Your task to perform on an android device: change the clock display to analog Image 0: 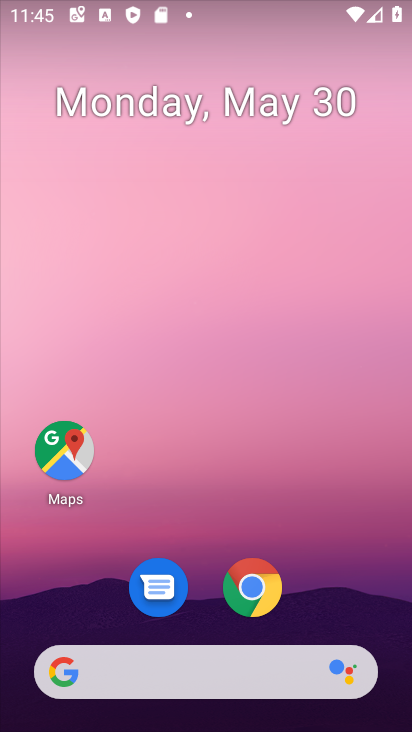
Step 0: drag from (219, 612) to (294, 210)
Your task to perform on an android device: change the clock display to analog Image 1: 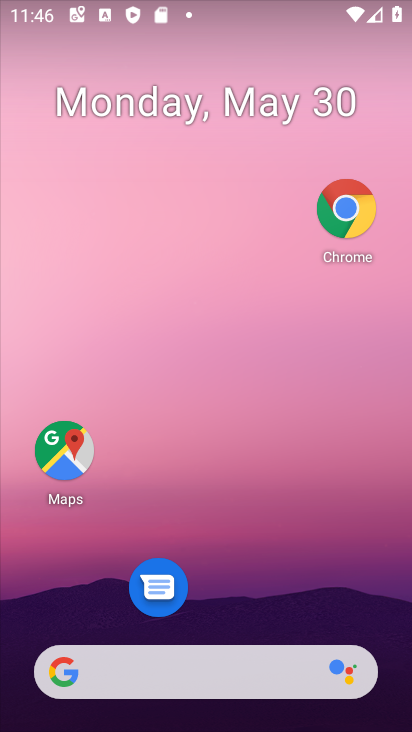
Step 1: drag from (210, 599) to (228, 219)
Your task to perform on an android device: change the clock display to analog Image 2: 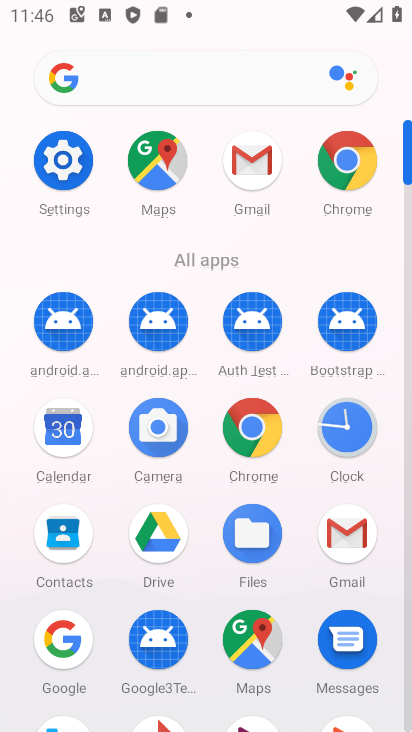
Step 2: click (368, 429)
Your task to perform on an android device: change the clock display to analog Image 3: 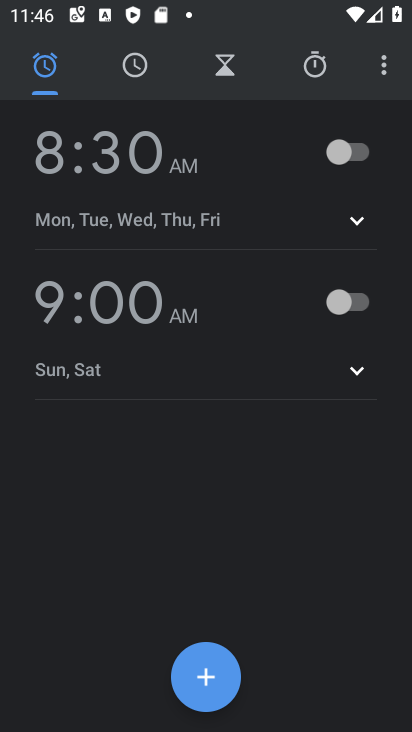
Step 3: click (388, 54)
Your task to perform on an android device: change the clock display to analog Image 4: 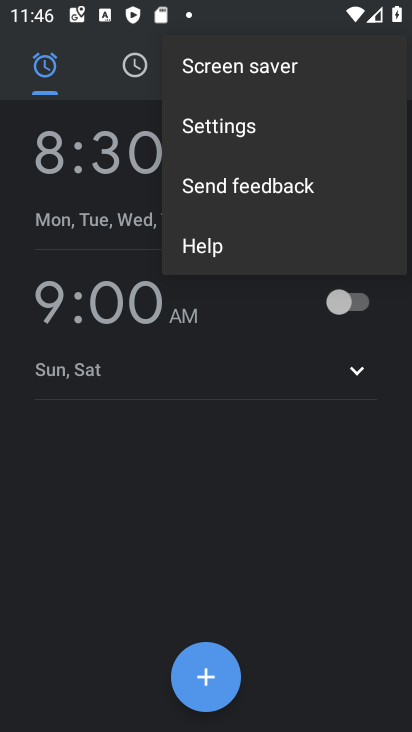
Step 4: click (261, 120)
Your task to perform on an android device: change the clock display to analog Image 5: 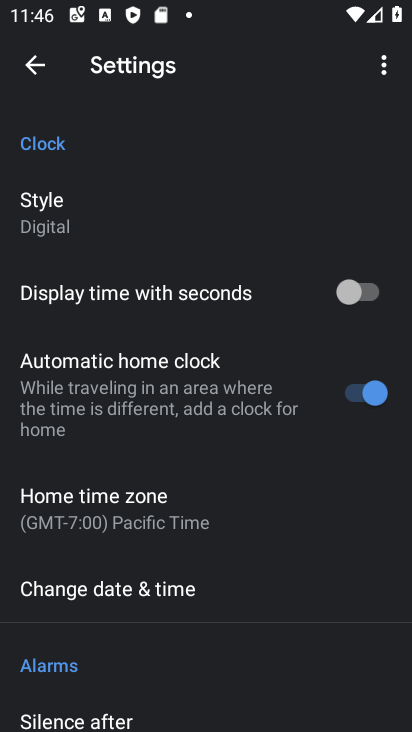
Step 5: click (89, 226)
Your task to perform on an android device: change the clock display to analog Image 6: 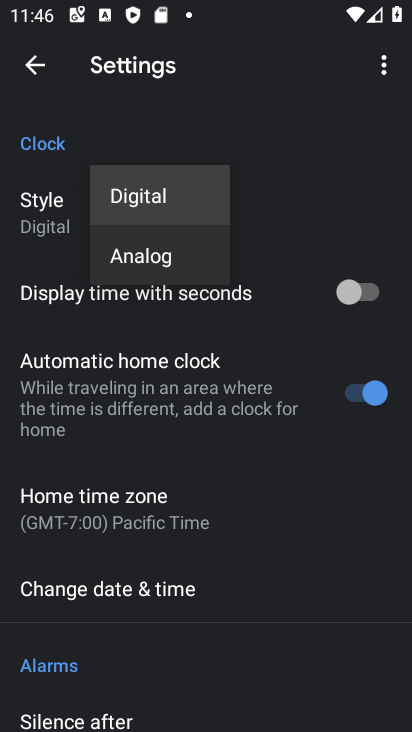
Step 6: click (162, 263)
Your task to perform on an android device: change the clock display to analog Image 7: 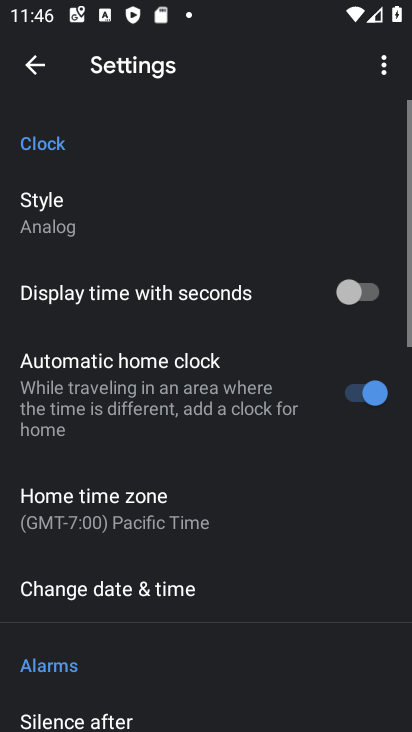
Step 7: task complete